Your task to perform on an android device: Show me popular videos on Youtube Image 0: 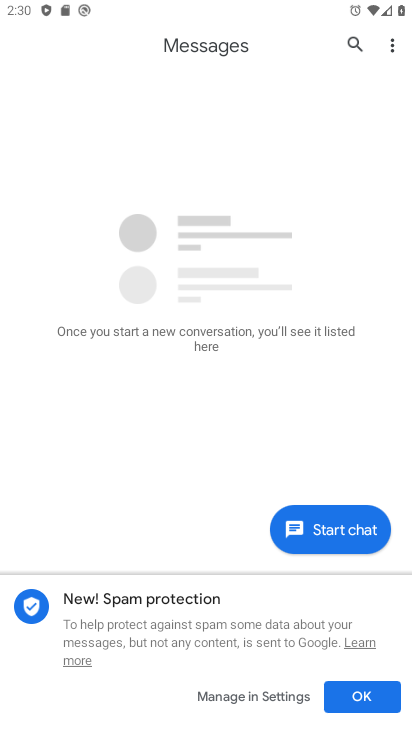
Step 0: press home button
Your task to perform on an android device: Show me popular videos on Youtube Image 1: 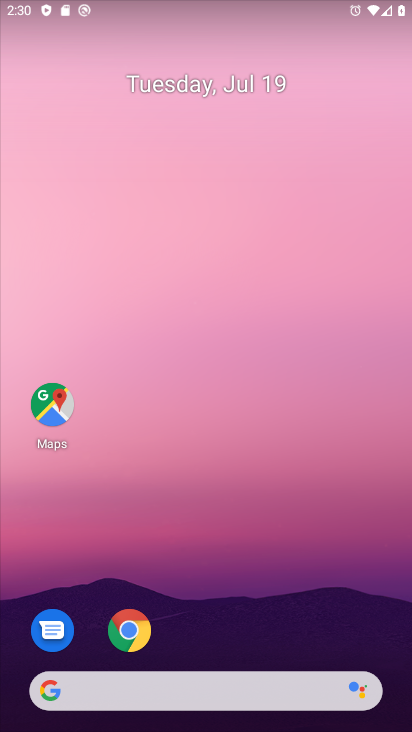
Step 1: drag from (237, 637) to (194, 64)
Your task to perform on an android device: Show me popular videos on Youtube Image 2: 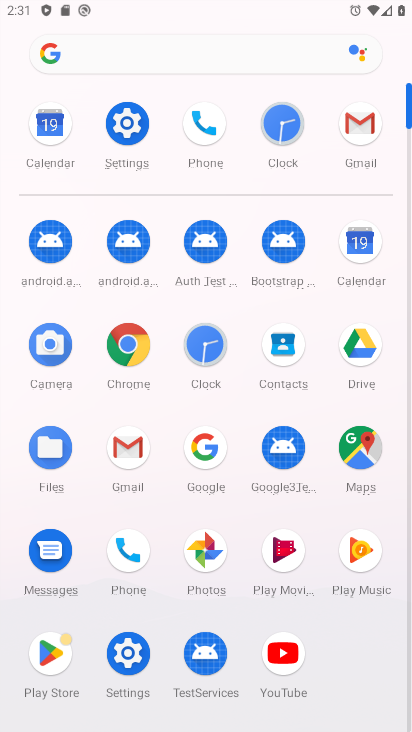
Step 2: click (277, 661)
Your task to perform on an android device: Show me popular videos on Youtube Image 3: 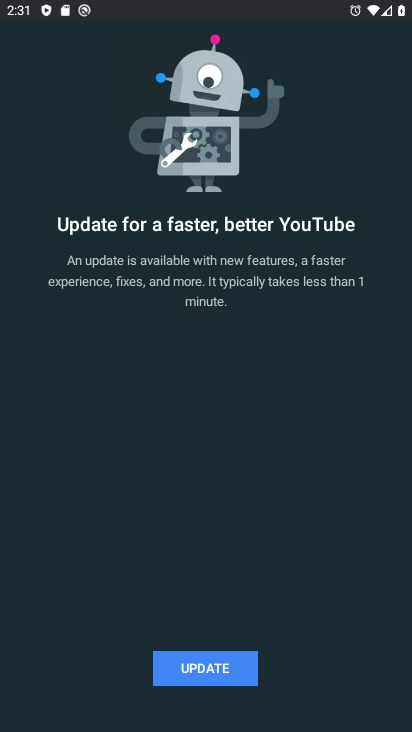
Step 3: click (223, 674)
Your task to perform on an android device: Show me popular videos on Youtube Image 4: 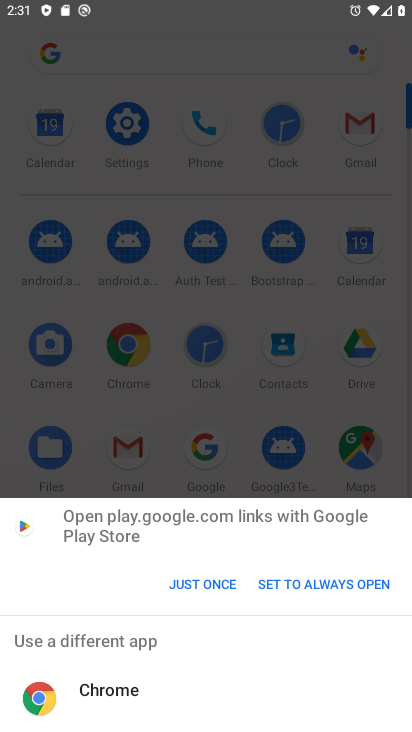
Step 4: click (181, 583)
Your task to perform on an android device: Show me popular videos on Youtube Image 5: 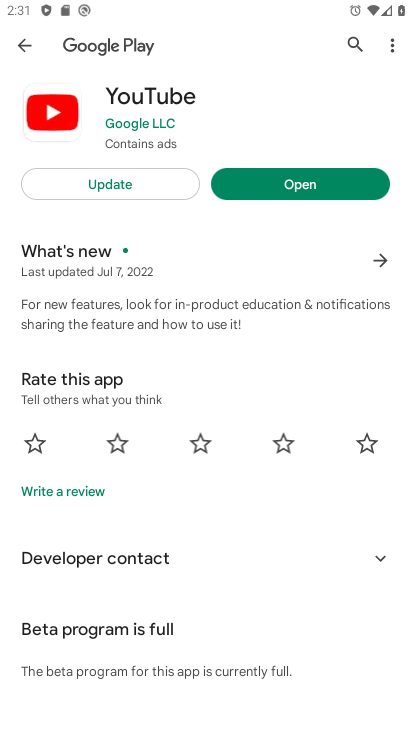
Step 5: click (153, 187)
Your task to perform on an android device: Show me popular videos on Youtube Image 6: 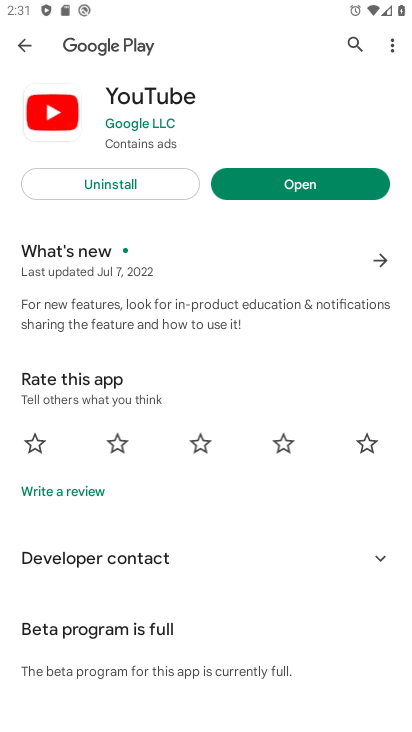
Step 6: click (326, 181)
Your task to perform on an android device: Show me popular videos on Youtube Image 7: 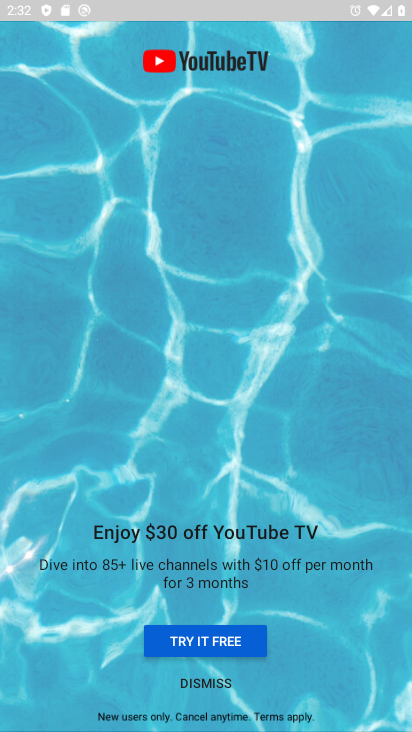
Step 7: click (216, 690)
Your task to perform on an android device: Show me popular videos on Youtube Image 8: 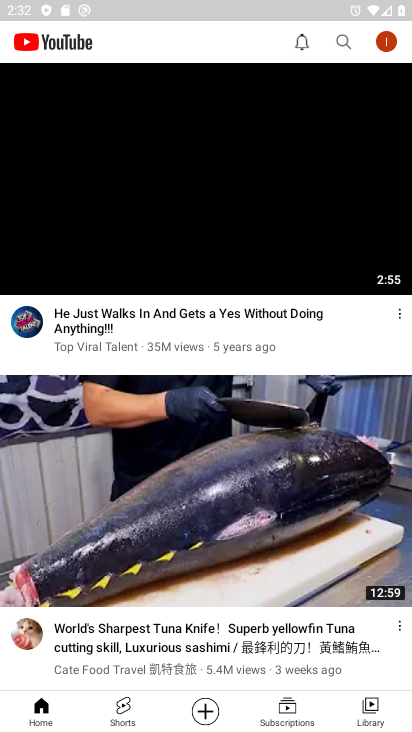
Step 8: click (337, 37)
Your task to perform on an android device: Show me popular videos on Youtube Image 9: 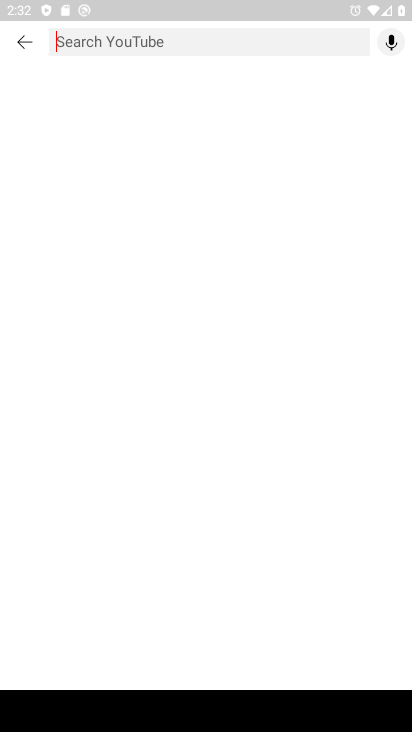
Step 9: type "popular videos"
Your task to perform on an android device: Show me popular videos on Youtube Image 10: 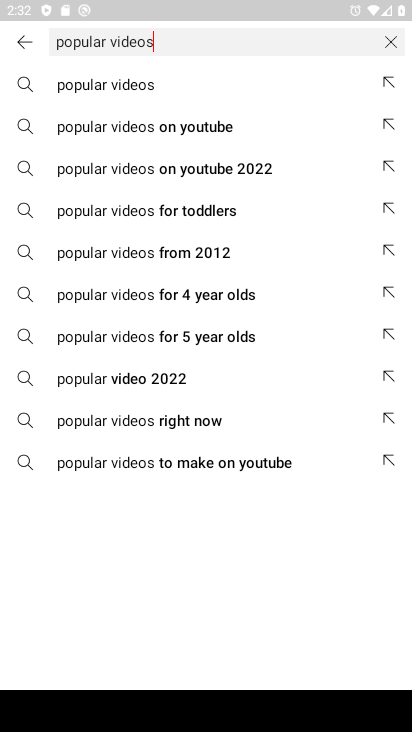
Step 10: click (221, 124)
Your task to perform on an android device: Show me popular videos on Youtube Image 11: 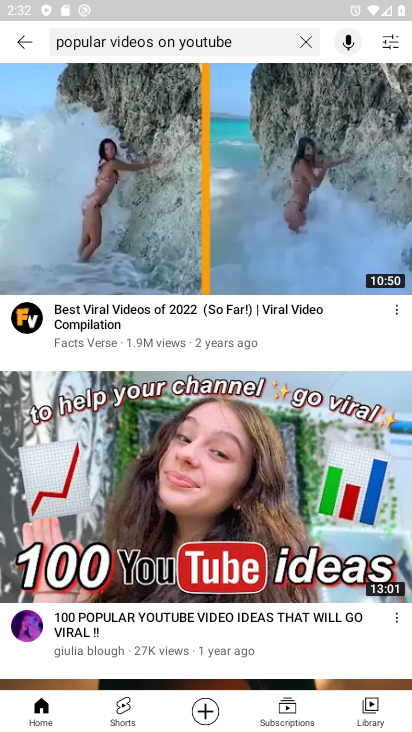
Step 11: task complete